Your task to perform on an android device: Open the calendar app, open the side menu, and click the "Day" option Image 0: 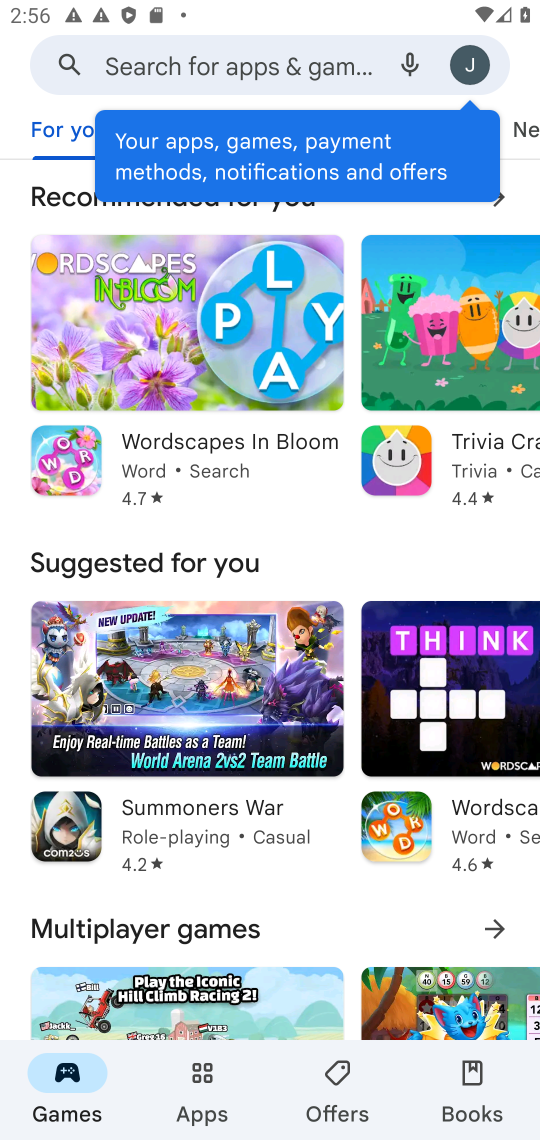
Step 0: press home button
Your task to perform on an android device: Open the calendar app, open the side menu, and click the "Day" option Image 1: 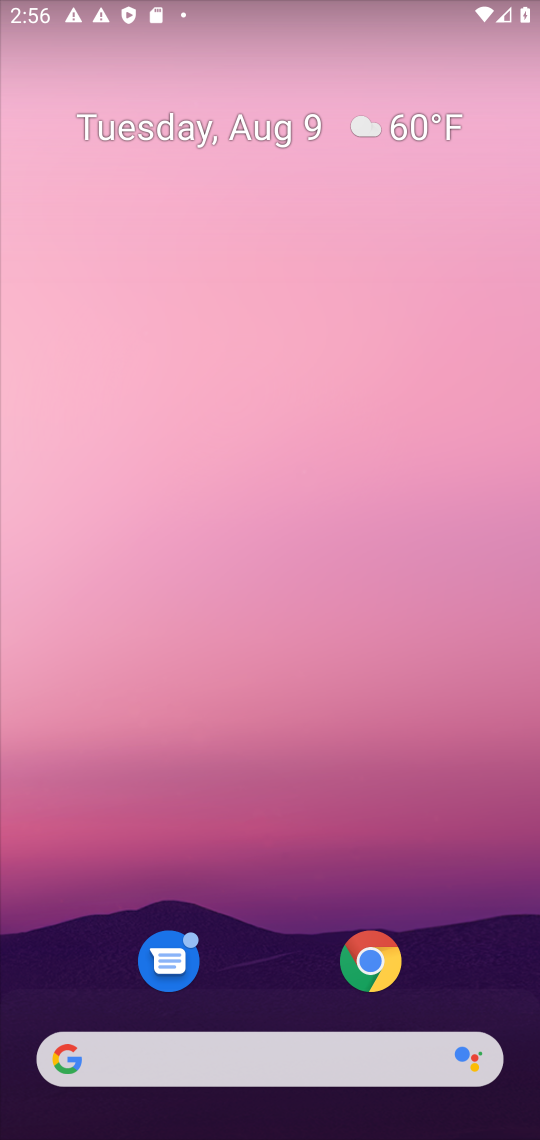
Step 1: drag from (249, 955) to (262, 377)
Your task to perform on an android device: Open the calendar app, open the side menu, and click the "Day" option Image 2: 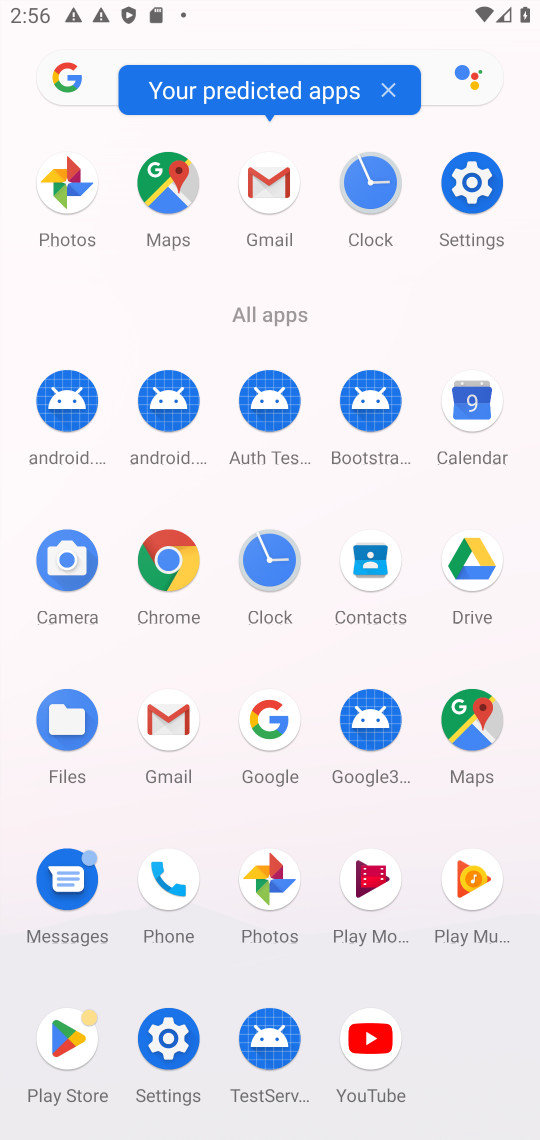
Step 2: click (484, 407)
Your task to perform on an android device: Open the calendar app, open the side menu, and click the "Day" option Image 3: 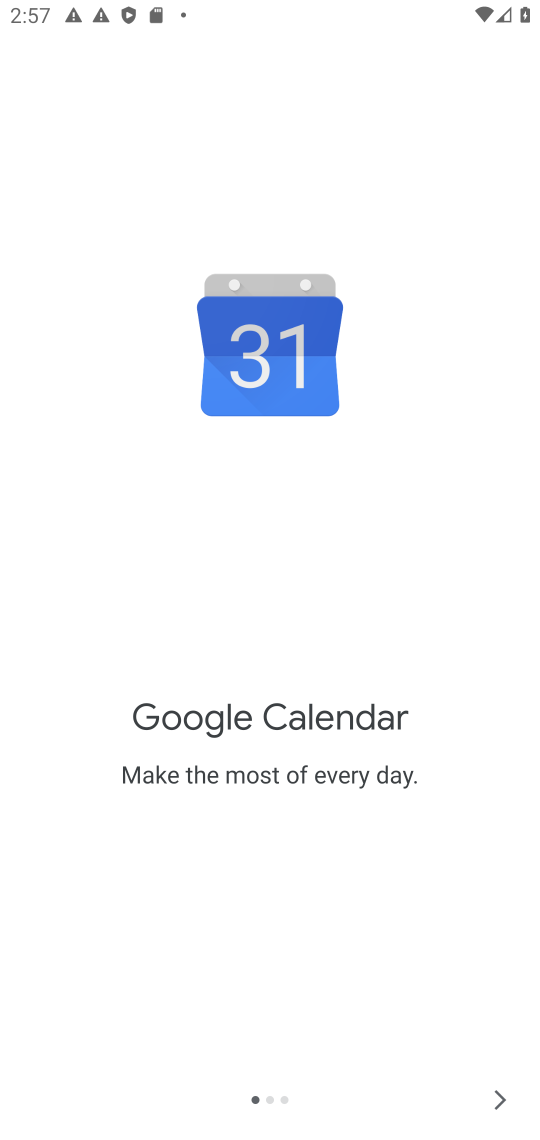
Step 3: click (492, 1099)
Your task to perform on an android device: Open the calendar app, open the side menu, and click the "Day" option Image 4: 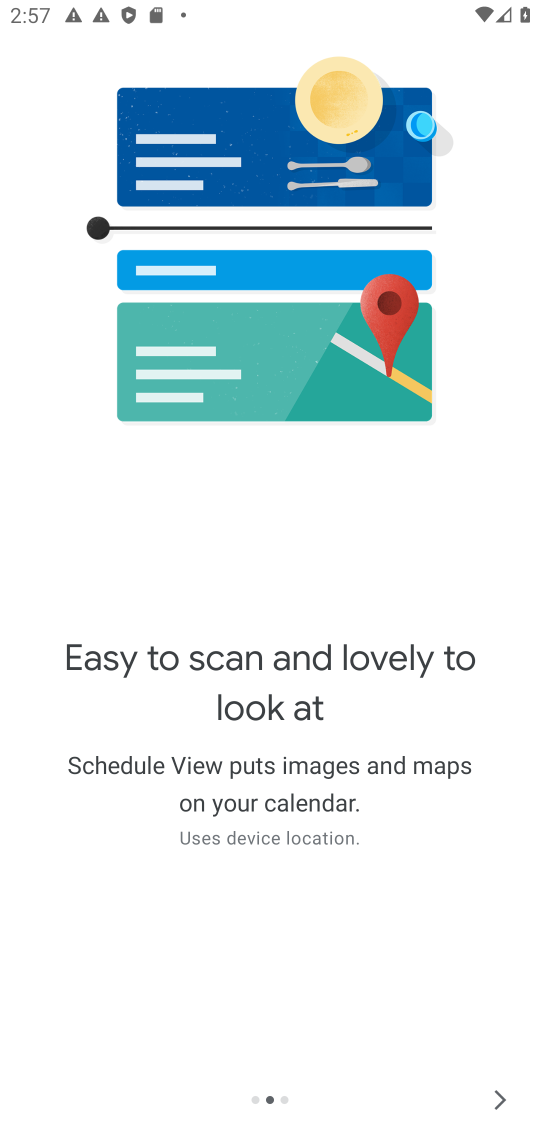
Step 4: click (492, 1099)
Your task to perform on an android device: Open the calendar app, open the side menu, and click the "Day" option Image 5: 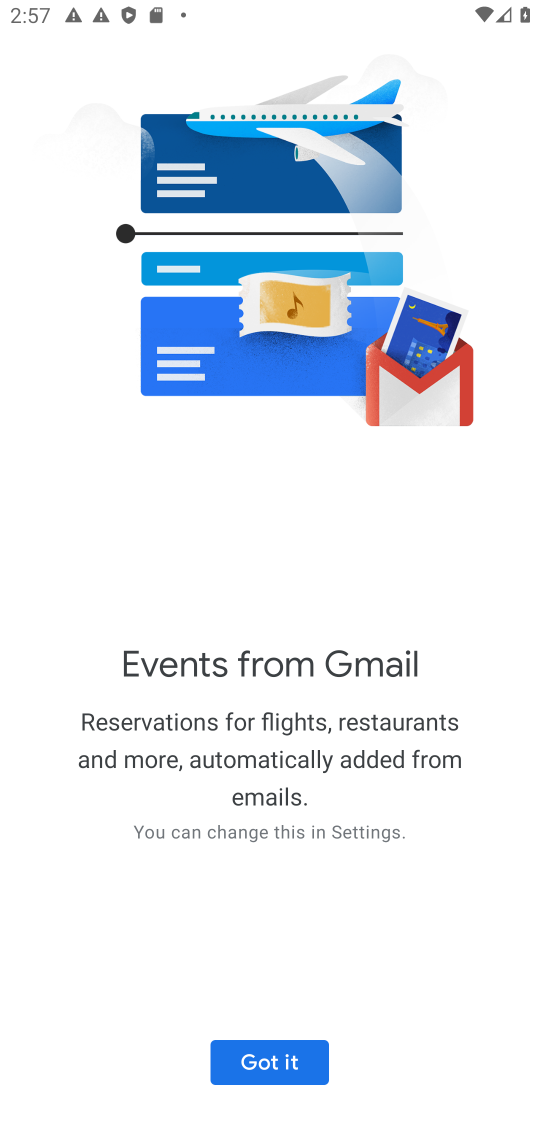
Step 5: click (244, 1066)
Your task to perform on an android device: Open the calendar app, open the side menu, and click the "Day" option Image 6: 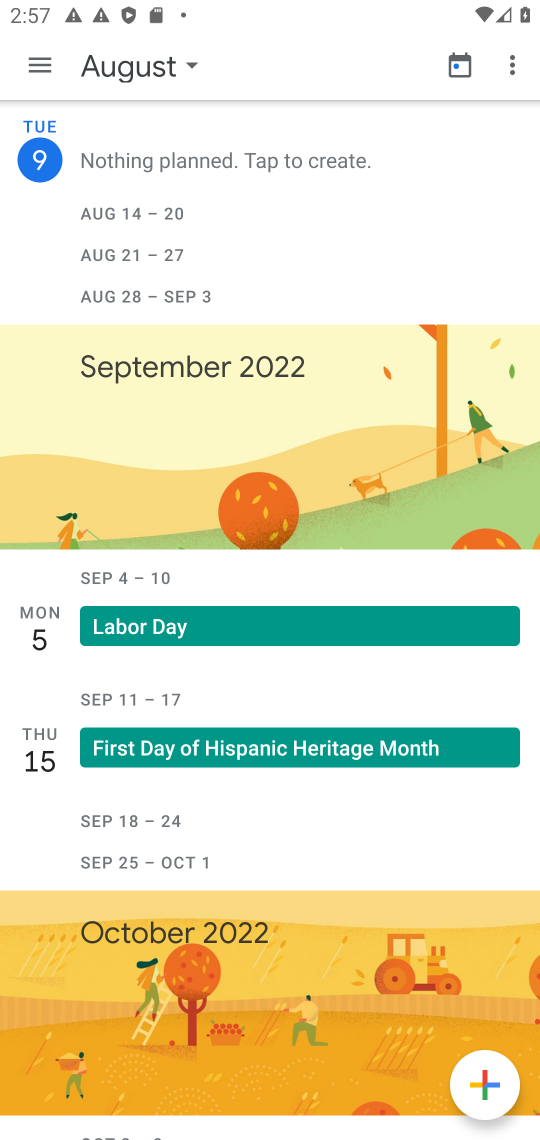
Step 6: click (40, 65)
Your task to perform on an android device: Open the calendar app, open the side menu, and click the "Day" option Image 7: 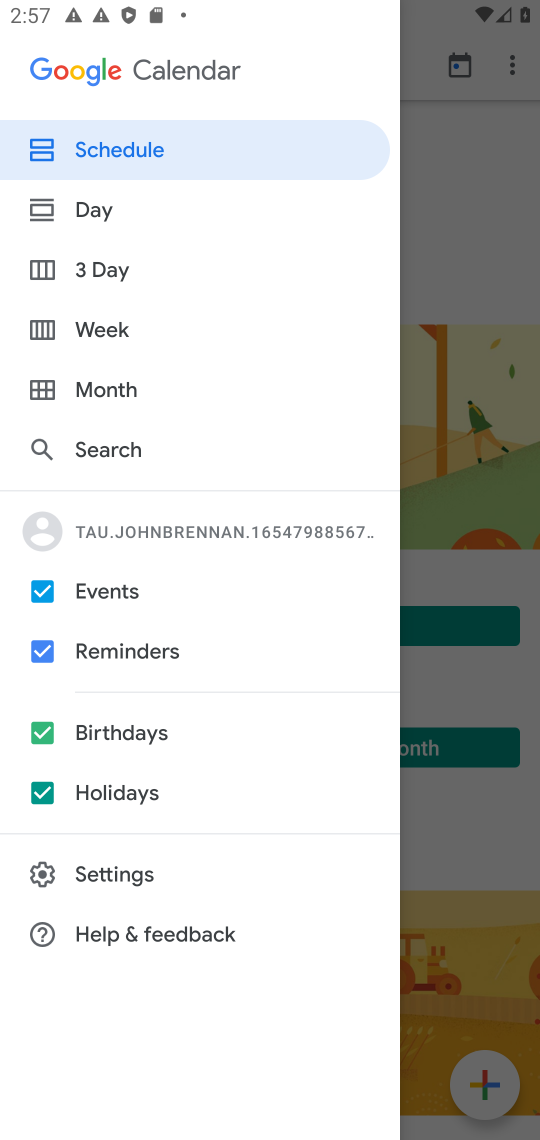
Step 7: click (60, 214)
Your task to perform on an android device: Open the calendar app, open the side menu, and click the "Day" option Image 8: 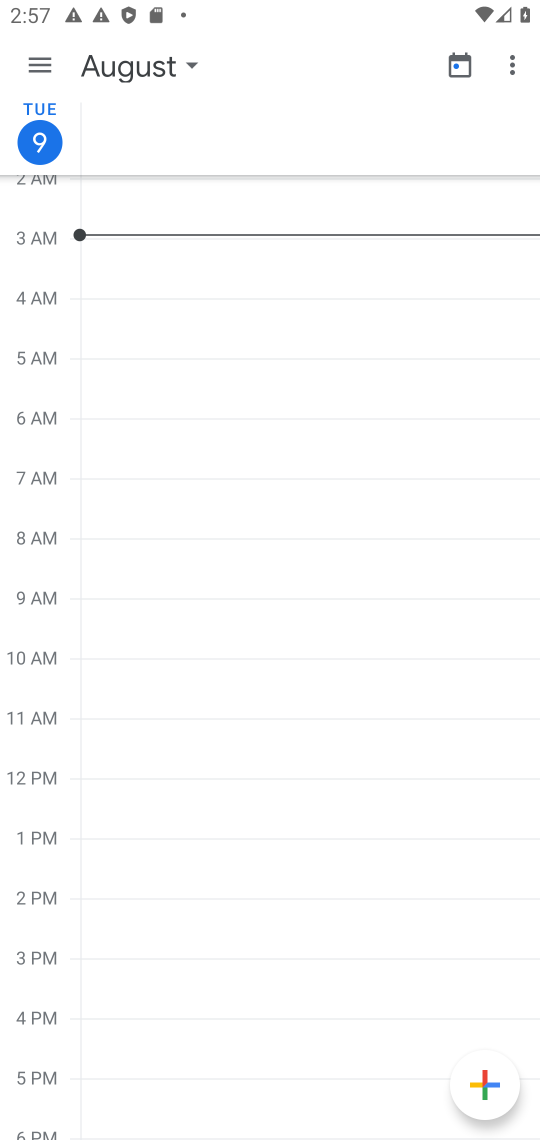
Step 8: task complete